Your task to perform on an android device: Add "macbook pro" to the cart on amazon.com Image 0: 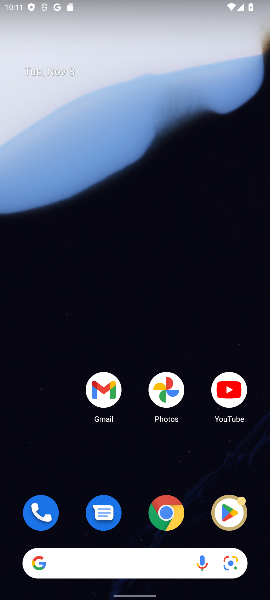
Step 0: click (168, 515)
Your task to perform on an android device: Add "macbook pro" to the cart on amazon.com Image 1: 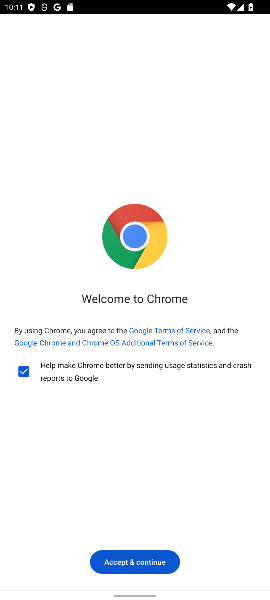
Step 1: click (151, 562)
Your task to perform on an android device: Add "macbook pro" to the cart on amazon.com Image 2: 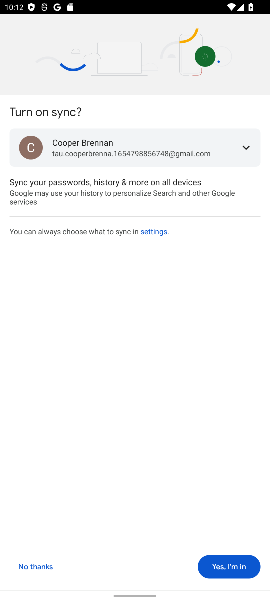
Step 2: click (219, 573)
Your task to perform on an android device: Add "macbook pro" to the cart on amazon.com Image 3: 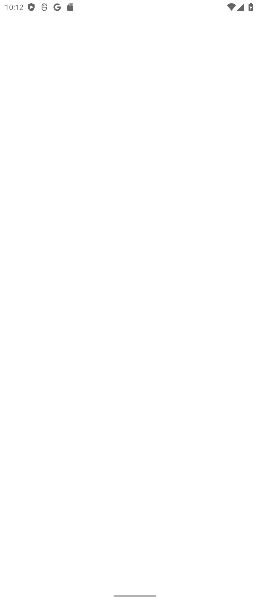
Step 3: click (219, 573)
Your task to perform on an android device: Add "macbook pro" to the cart on amazon.com Image 4: 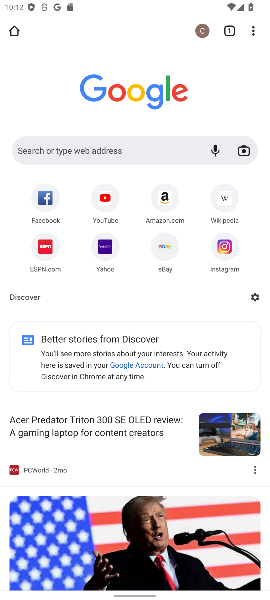
Step 4: click (160, 204)
Your task to perform on an android device: Add "macbook pro" to the cart on amazon.com Image 5: 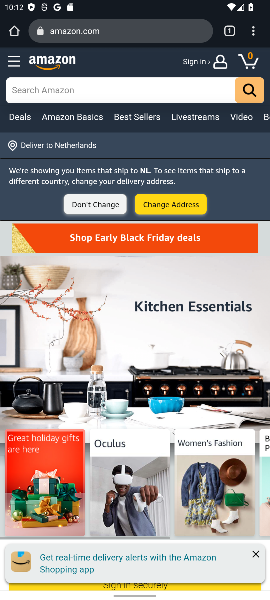
Step 5: click (67, 91)
Your task to perform on an android device: Add "macbook pro" to the cart on amazon.com Image 6: 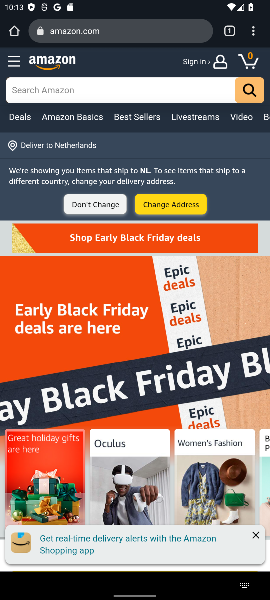
Step 6: press enter
Your task to perform on an android device: Add "macbook pro" to the cart on amazon.com Image 7: 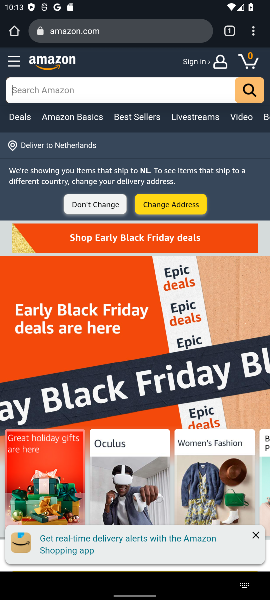
Step 7: type "macbook pro"
Your task to perform on an android device: Add "macbook pro" to the cart on amazon.com Image 8: 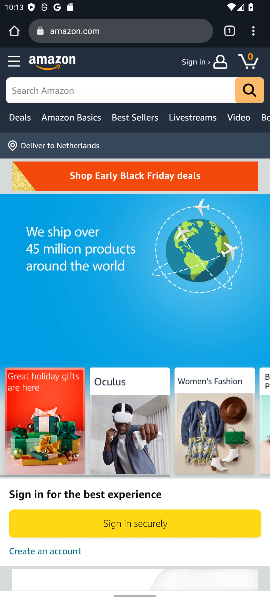
Step 8: type "macbook pro"
Your task to perform on an android device: Add "macbook pro" to the cart on amazon.com Image 9: 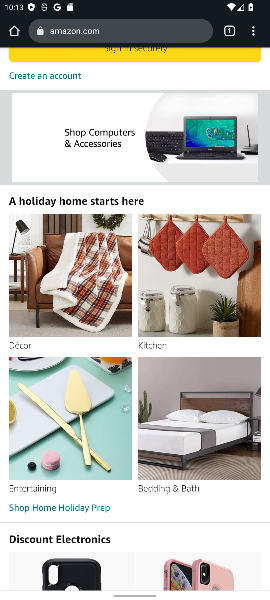
Step 9: drag from (201, 193) to (183, 593)
Your task to perform on an android device: Add "macbook pro" to the cart on amazon.com Image 10: 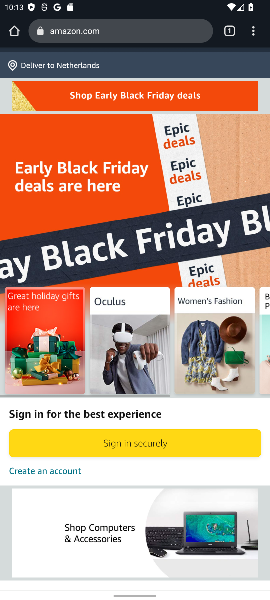
Step 10: drag from (134, 196) to (152, 587)
Your task to perform on an android device: Add "macbook pro" to the cart on amazon.com Image 11: 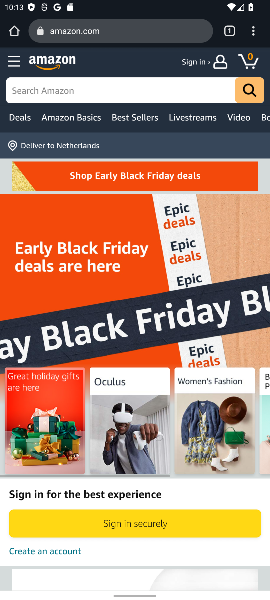
Step 11: click (35, 93)
Your task to perform on an android device: Add "macbook pro" to the cart on amazon.com Image 12: 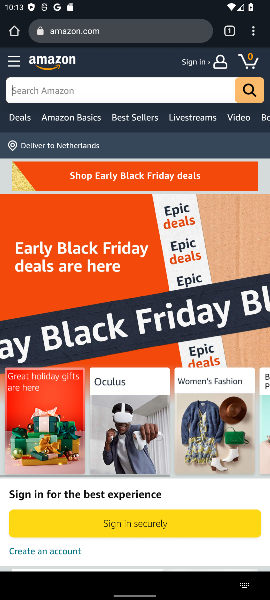
Step 12: type "macbook pro"
Your task to perform on an android device: Add "macbook pro" to the cart on amazon.com Image 13: 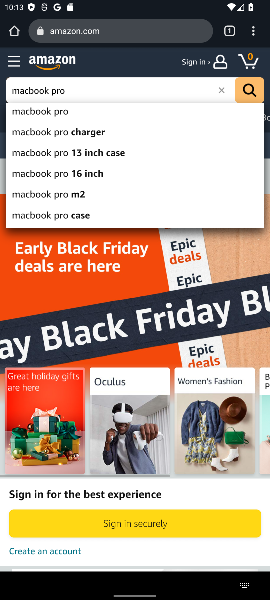
Step 13: click (56, 111)
Your task to perform on an android device: Add "macbook pro" to the cart on amazon.com Image 14: 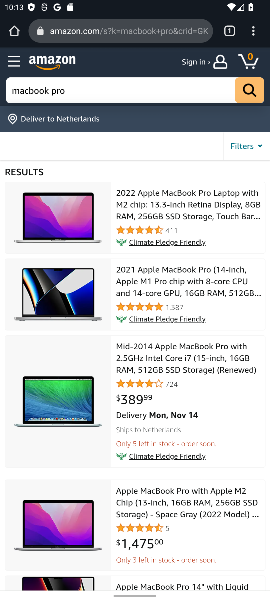
Step 14: click (148, 206)
Your task to perform on an android device: Add "macbook pro" to the cart on amazon.com Image 15: 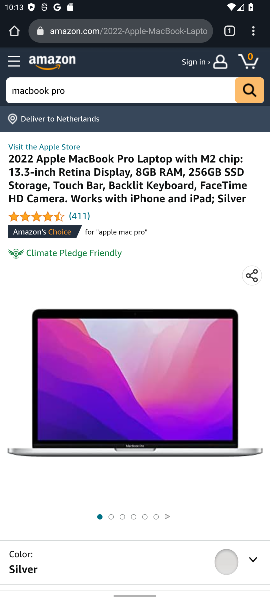
Step 15: drag from (77, 508) to (3, 255)
Your task to perform on an android device: Add "macbook pro" to the cart on amazon.com Image 16: 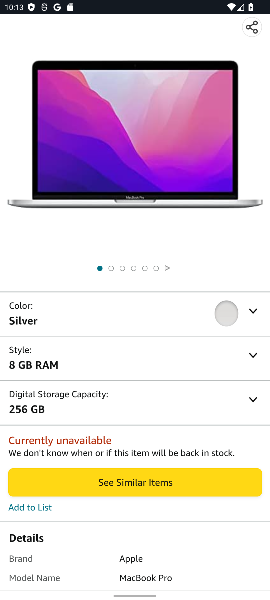
Step 16: click (158, 484)
Your task to perform on an android device: Add "macbook pro" to the cart on amazon.com Image 17: 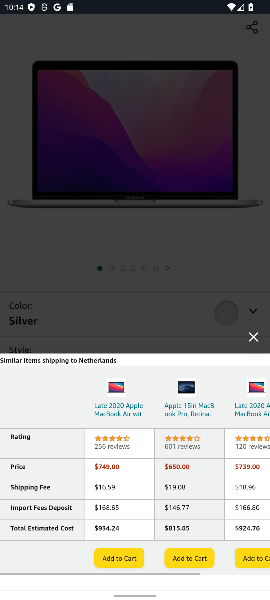
Step 17: click (116, 556)
Your task to perform on an android device: Add "macbook pro" to the cart on amazon.com Image 18: 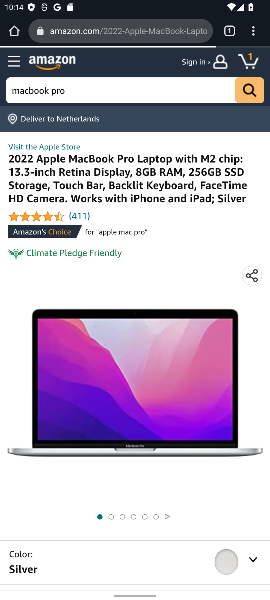
Step 18: task complete